Your task to perform on an android device: Go to location settings Image 0: 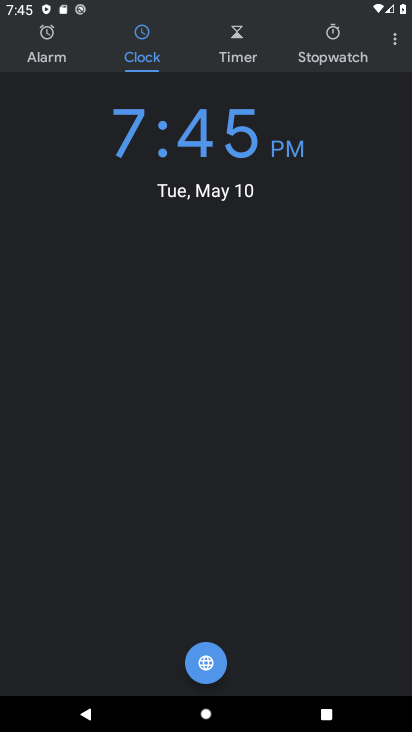
Step 0: press home button
Your task to perform on an android device: Go to location settings Image 1: 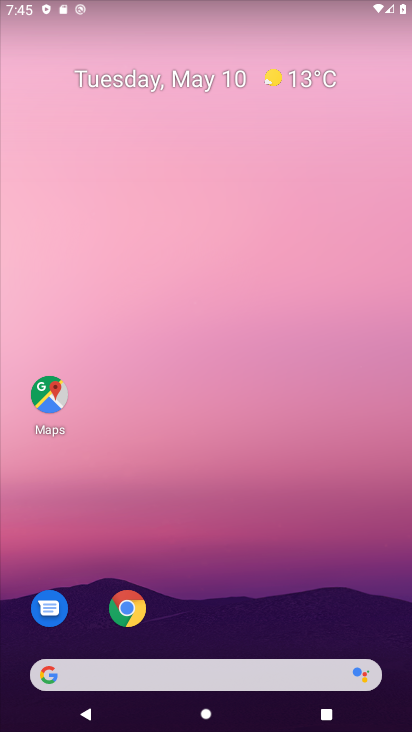
Step 1: drag from (141, 675) to (269, 65)
Your task to perform on an android device: Go to location settings Image 2: 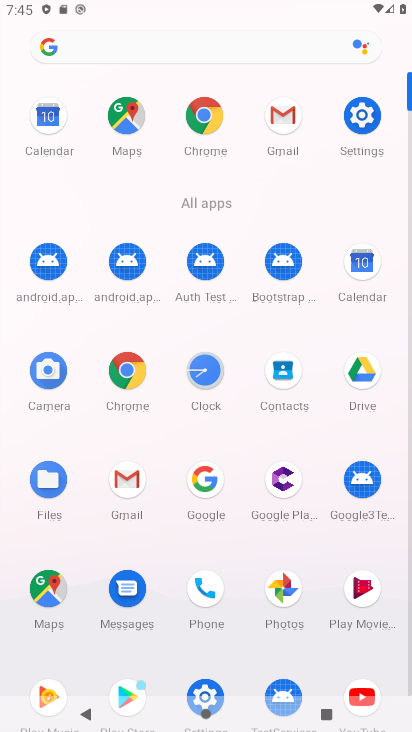
Step 2: click (360, 115)
Your task to perform on an android device: Go to location settings Image 3: 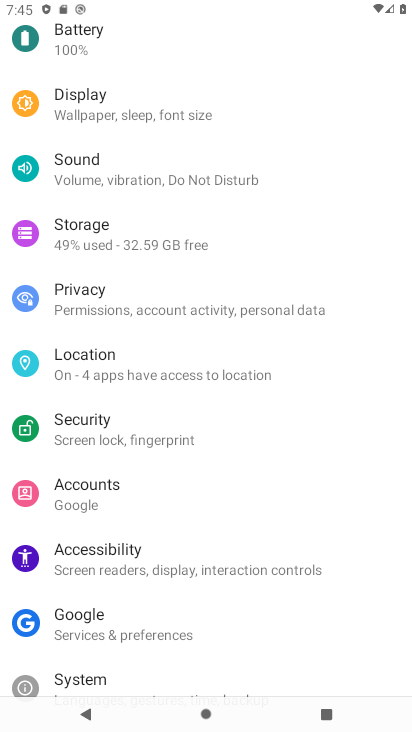
Step 3: click (83, 367)
Your task to perform on an android device: Go to location settings Image 4: 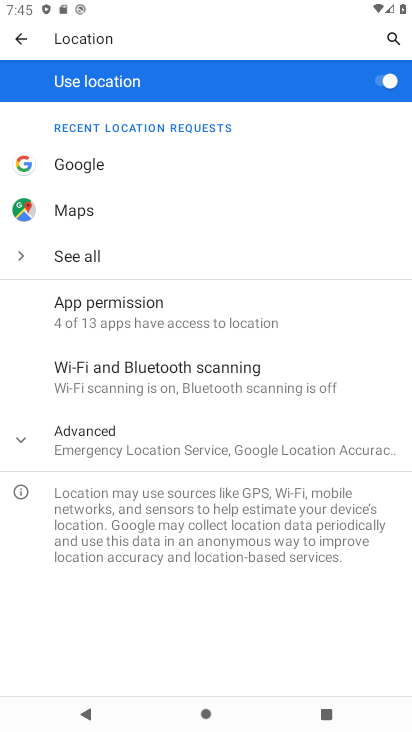
Step 4: task complete